Your task to perform on an android device: stop showing notifications on the lock screen Image 0: 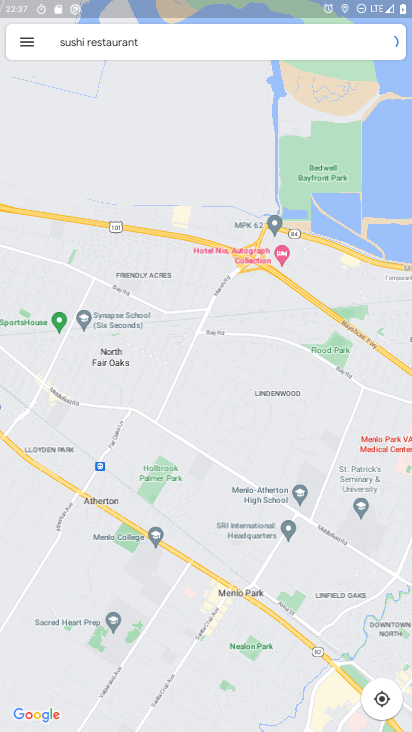
Step 0: drag from (230, 598) to (271, 258)
Your task to perform on an android device: stop showing notifications on the lock screen Image 1: 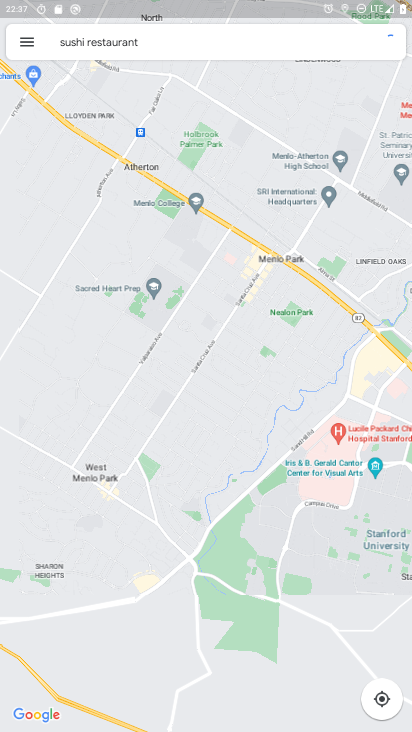
Step 1: press home button
Your task to perform on an android device: stop showing notifications on the lock screen Image 2: 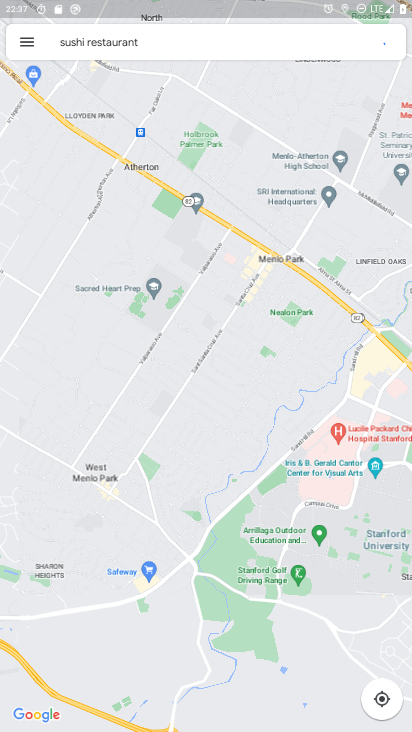
Step 2: drag from (234, 455) to (235, 296)
Your task to perform on an android device: stop showing notifications on the lock screen Image 3: 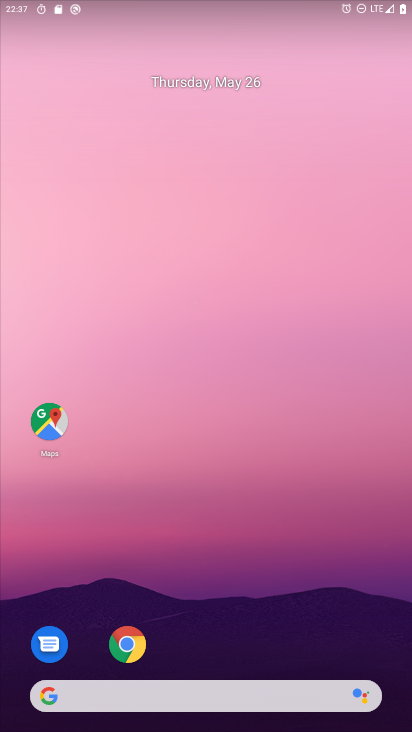
Step 3: drag from (196, 616) to (206, 181)
Your task to perform on an android device: stop showing notifications on the lock screen Image 4: 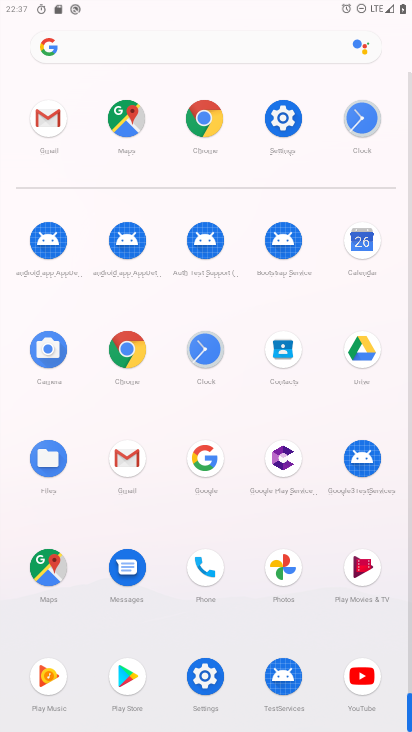
Step 4: click (284, 113)
Your task to perform on an android device: stop showing notifications on the lock screen Image 5: 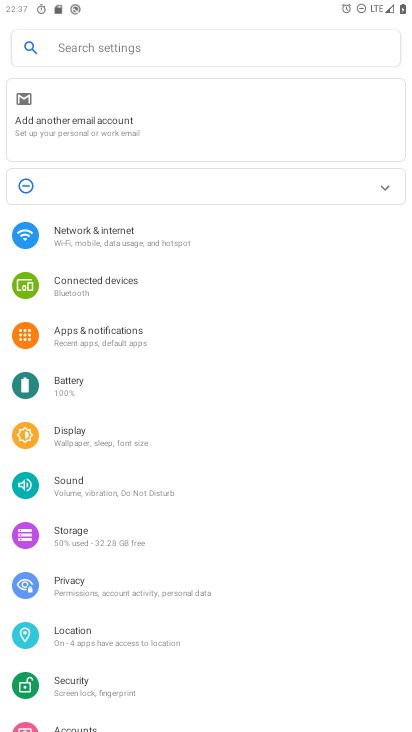
Step 5: click (100, 341)
Your task to perform on an android device: stop showing notifications on the lock screen Image 6: 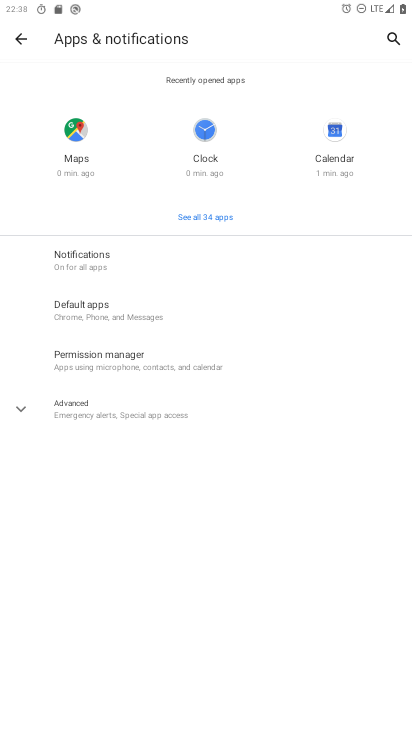
Step 6: click (123, 256)
Your task to perform on an android device: stop showing notifications on the lock screen Image 7: 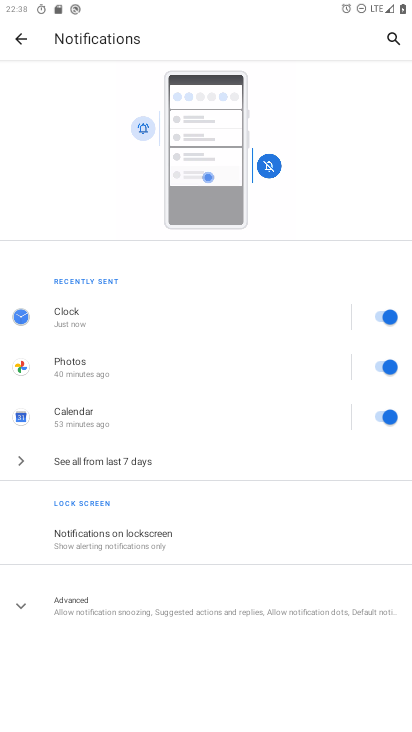
Step 7: click (116, 553)
Your task to perform on an android device: stop showing notifications on the lock screen Image 8: 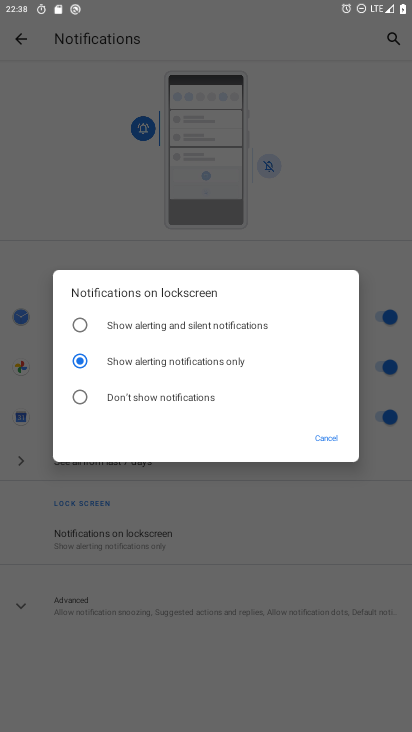
Step 8: click (72, 398)
Your task to perform on an android device: stop showing notifications on the lock screen Image 9: 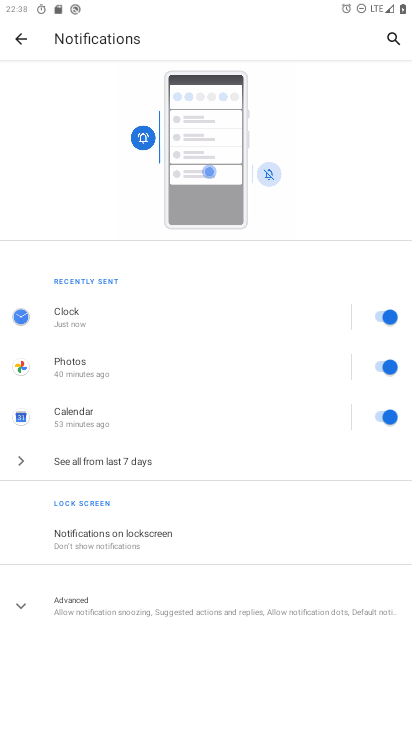
Step 9: task complete